Your task to perform on an android device: Open sound settings Image 0: 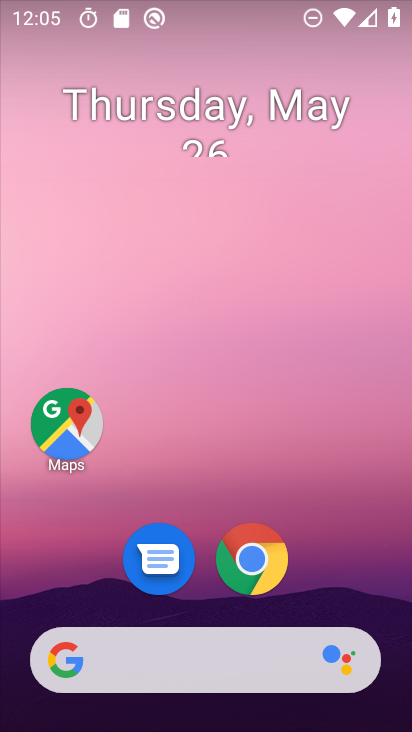
Step 0: drag from (375, 540) to (335, 205)
Your task to perform on an android device: Open sound settings Image 1: 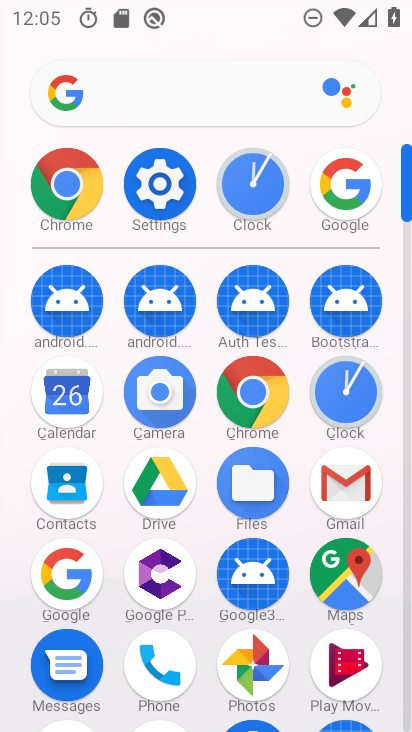
Step 1: click (145, 206)
Your task to perform on an android device: Open sound settings Image 2: 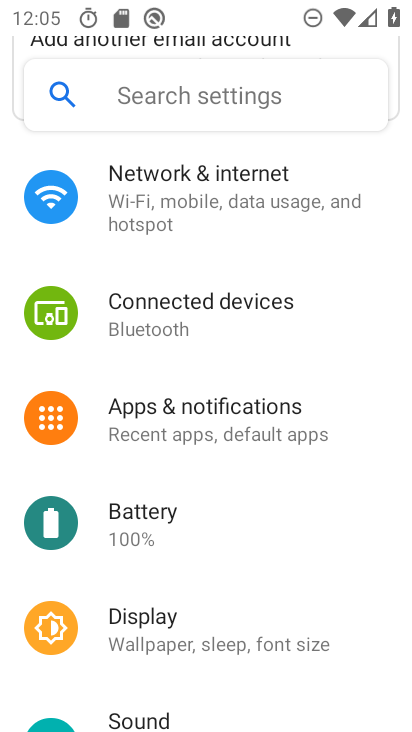
Step 2: drag from (250, 659) to (251, 509)
Your task to perform on an android device: Open sound settings Image 3: 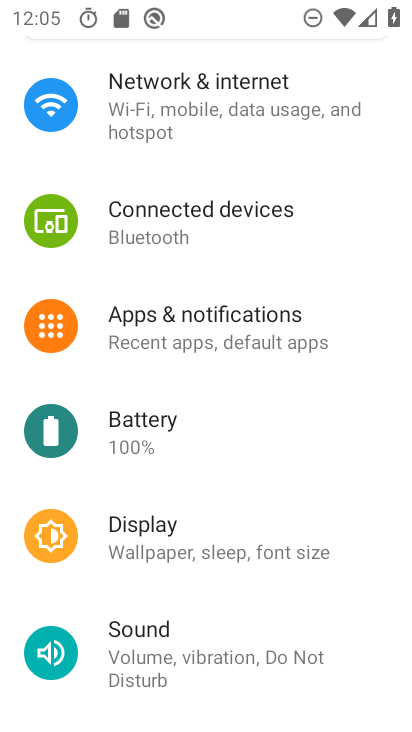
Step 3: click (180, 622)
Your task to perform on an android device: Open sound settings Image 4: 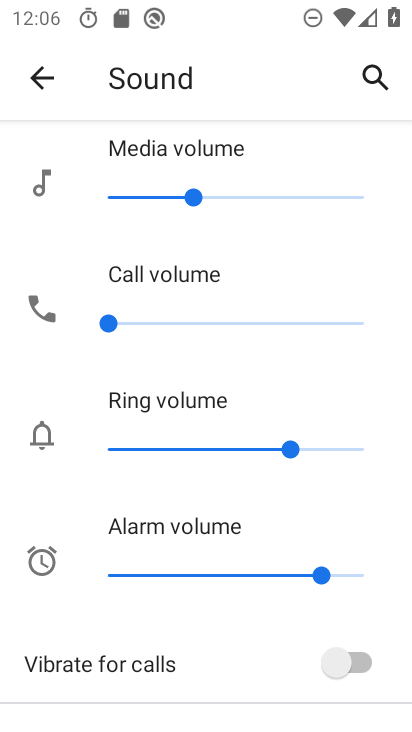
Step 4: task complete